Your task to perform on an android device: Clear the shopping cart on ebay.com. Add usb-c to the cart on ebay.com Image 0: 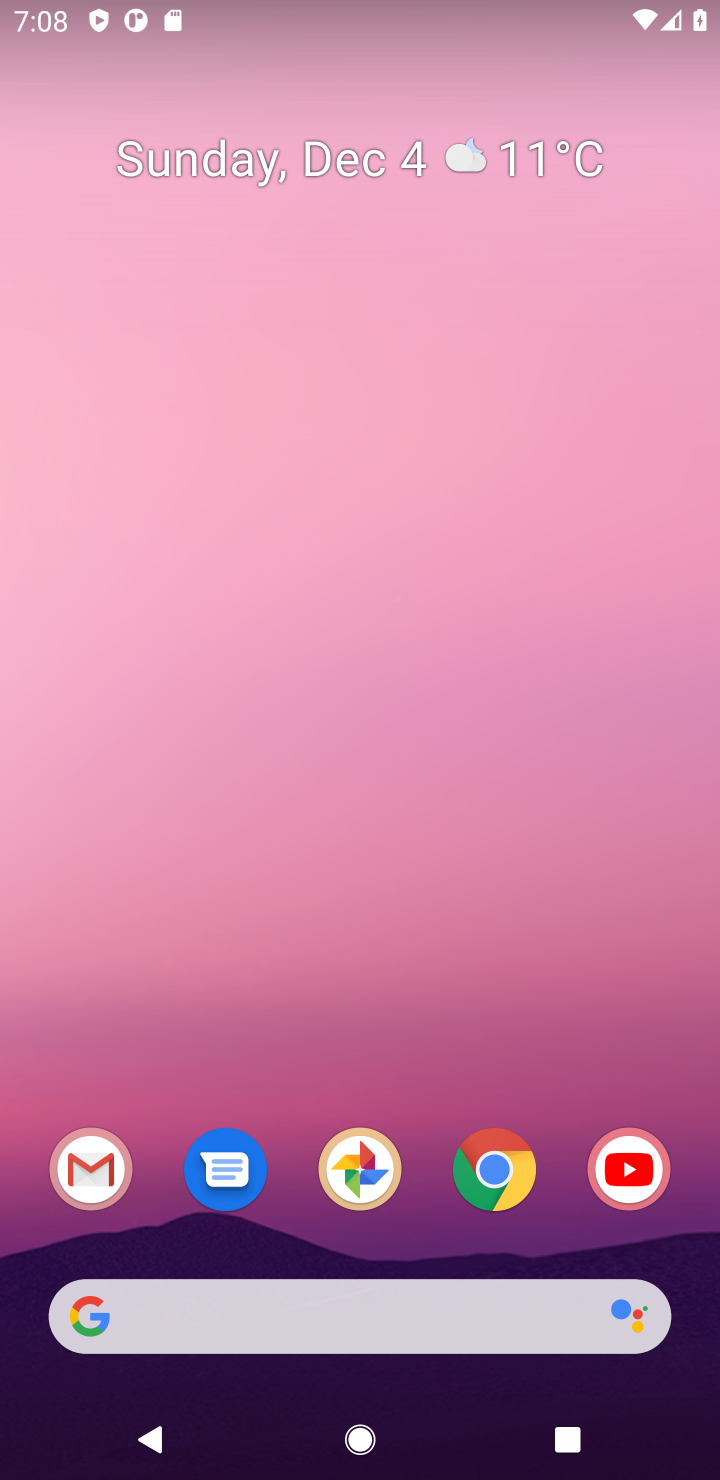
Step 0: drag from (415, 1393) to (604, 14)
Your task to perform on an android device: Clear the shopping cart on ebay.com. Add usb-c to the cart on ebay.com Image 1: 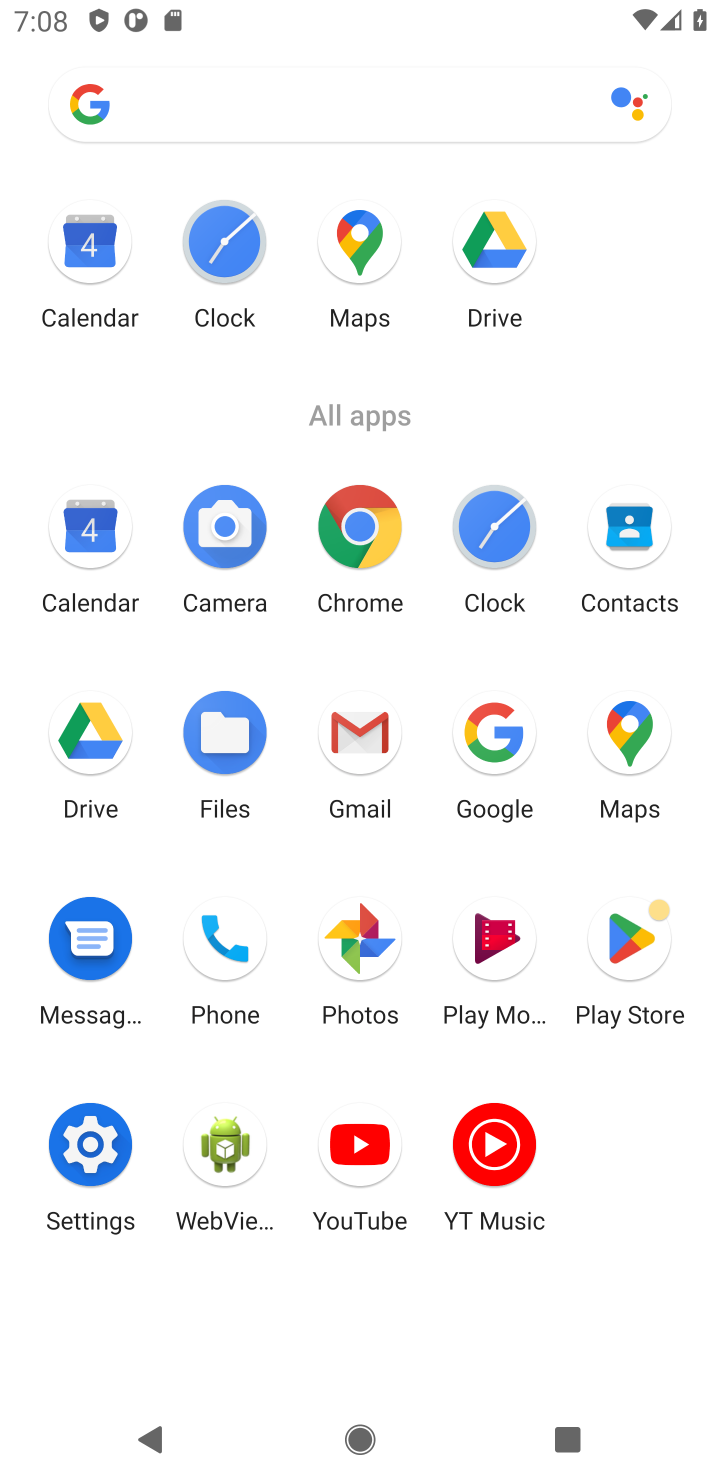
Step 1: click (361, 527)
Your task to perform on an android device: Clear the shopping cart on ebay.com. Add usb-c to the cart on ebay.com Image 2: 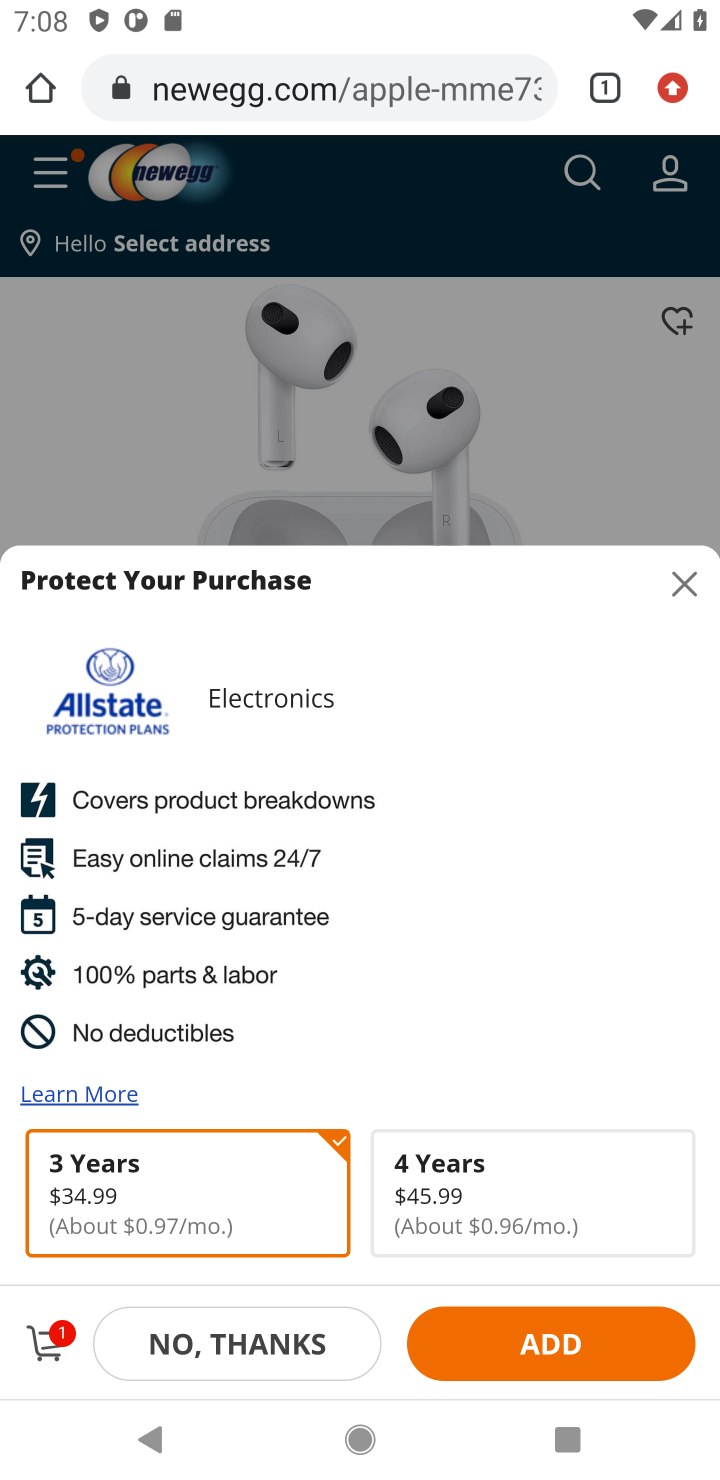
Step 2: click (476, 85)
Your task to perform on an android device: Clear the shopping cart on ebay.com. Add usb-c to the cart on ebay.com Image 3: 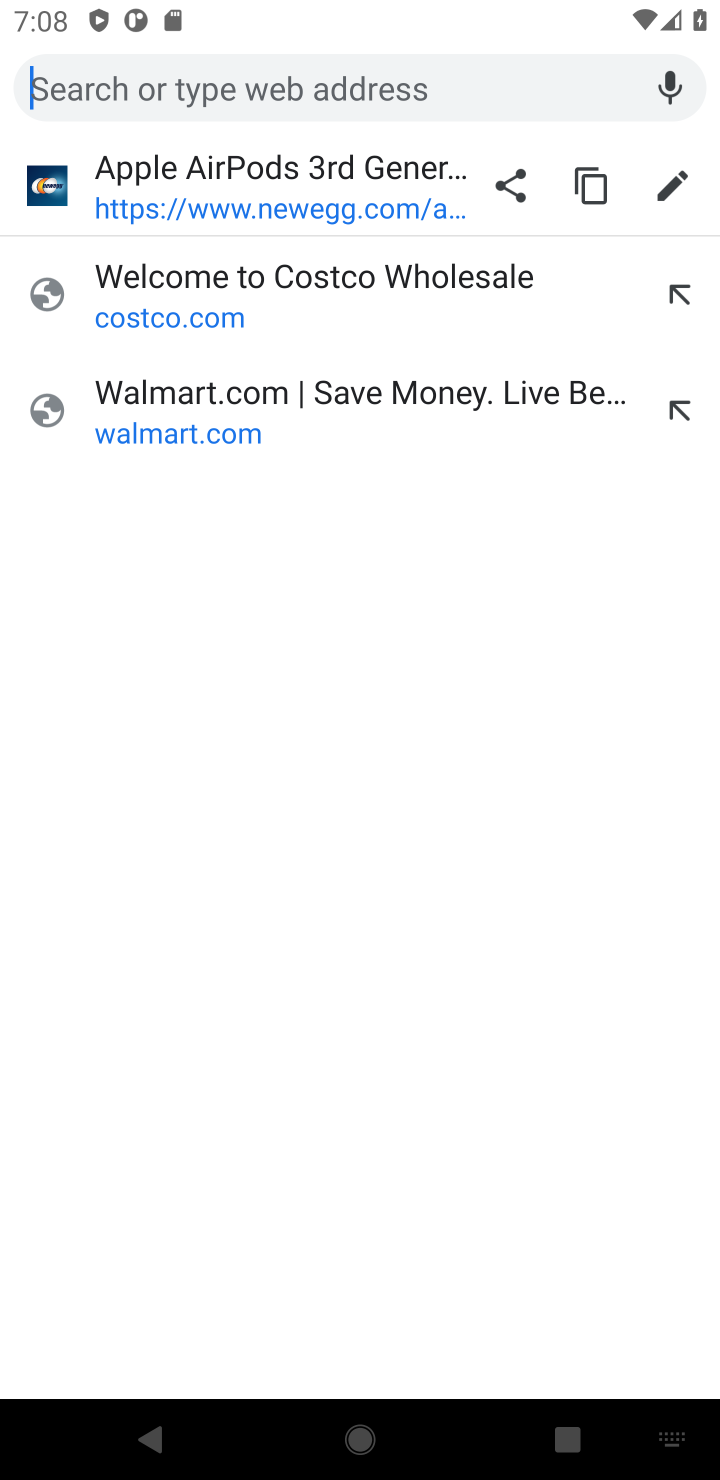
Step 3: type "ebay.com"
Your task to perform on an android device: Clear the shopping cart on ebay.com. Add usb-c to the cart on ebay.com Image 4: 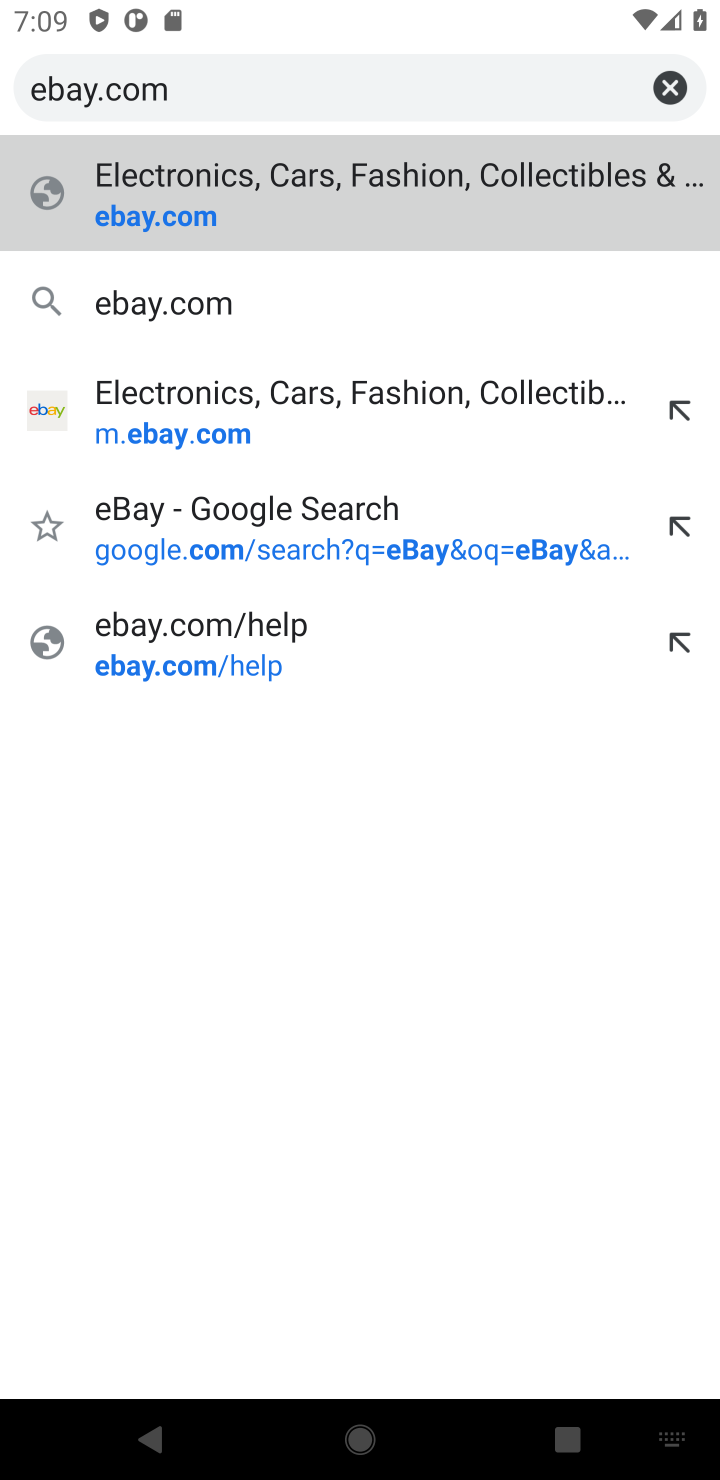
Step 4: type ""
Your task to perform on an android device: Clear the shopping cart on ebay.com. Add usb-c to the cart on ebay.com Image 5: 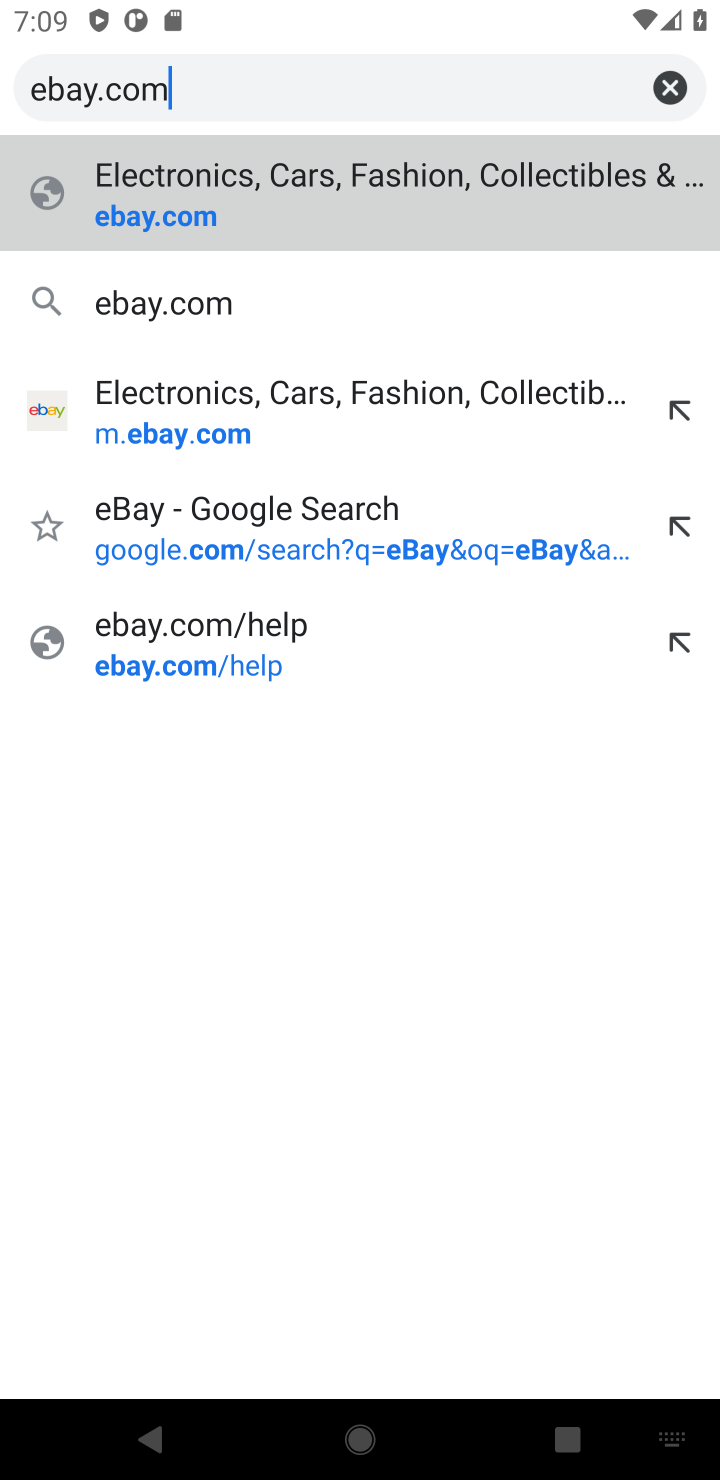
Step 5: click (165, 216)
Your task to perform on an android device: Clear the shopping cart on ebay.com. Add usb-c to the cart on ebay.com Image 6: 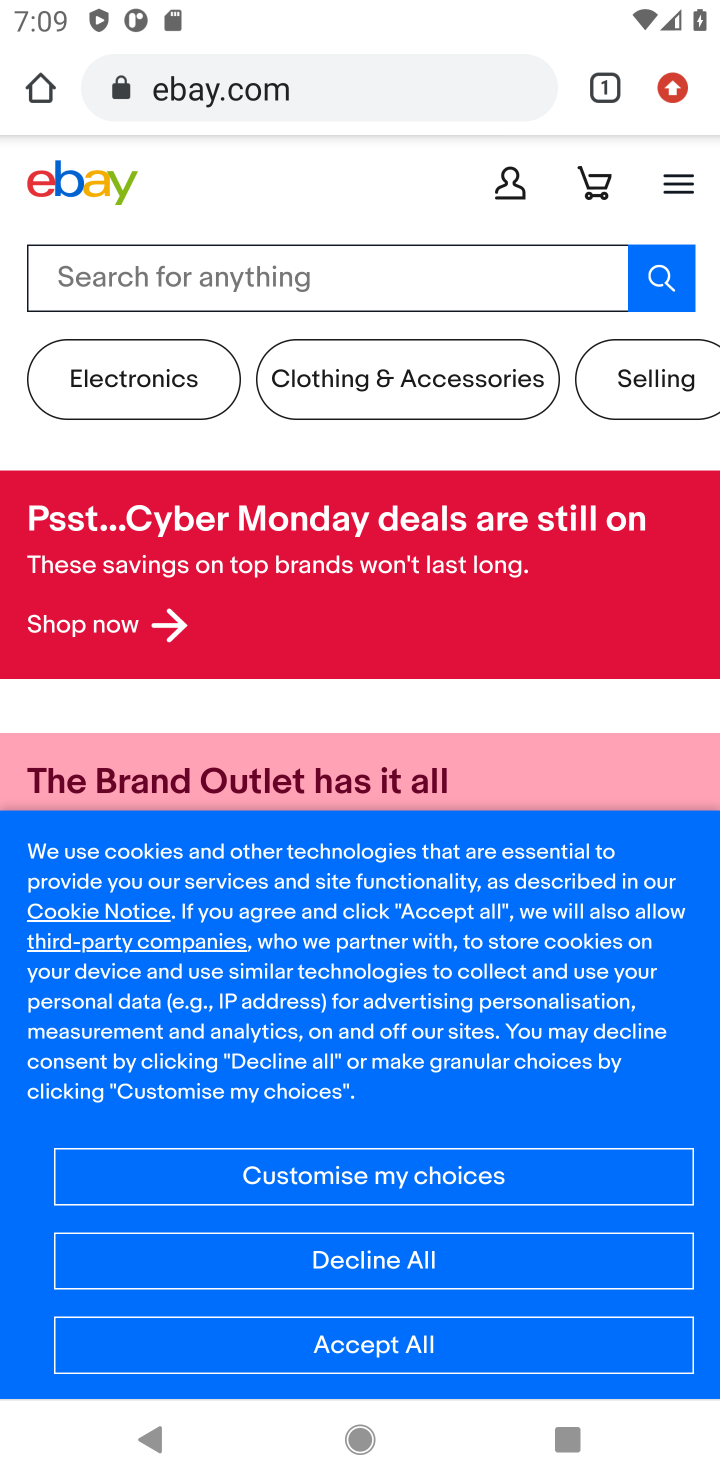
Step 6: click (603, 180)
Your task to perform on an android device: Clear the shopping cart on ebay.com. Add usb-c to the cart on ebay.com Image 7: 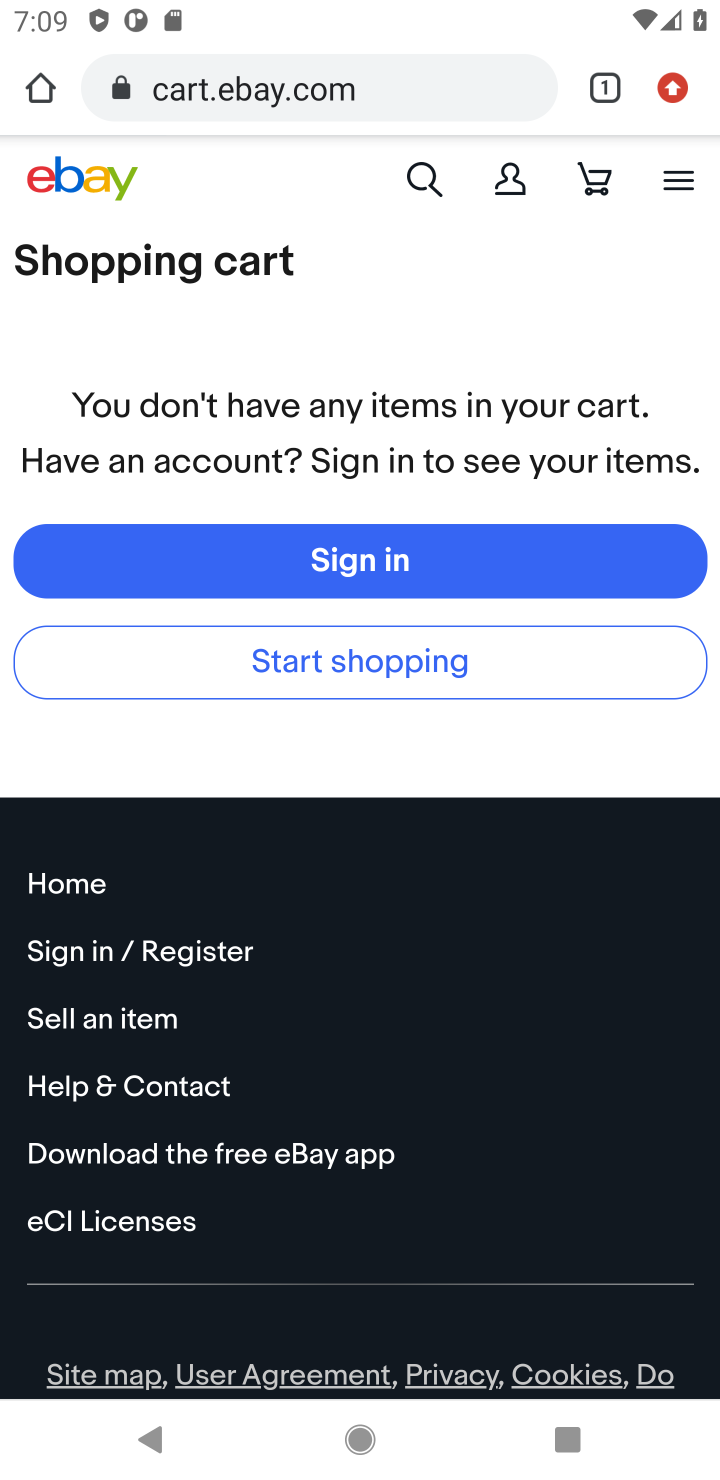
Step 7: click (420, 167)
Your task to perform on an android device: Clear the shopping cart on ebay.com. Add usb-c to the cart on ebay.com Image 8: 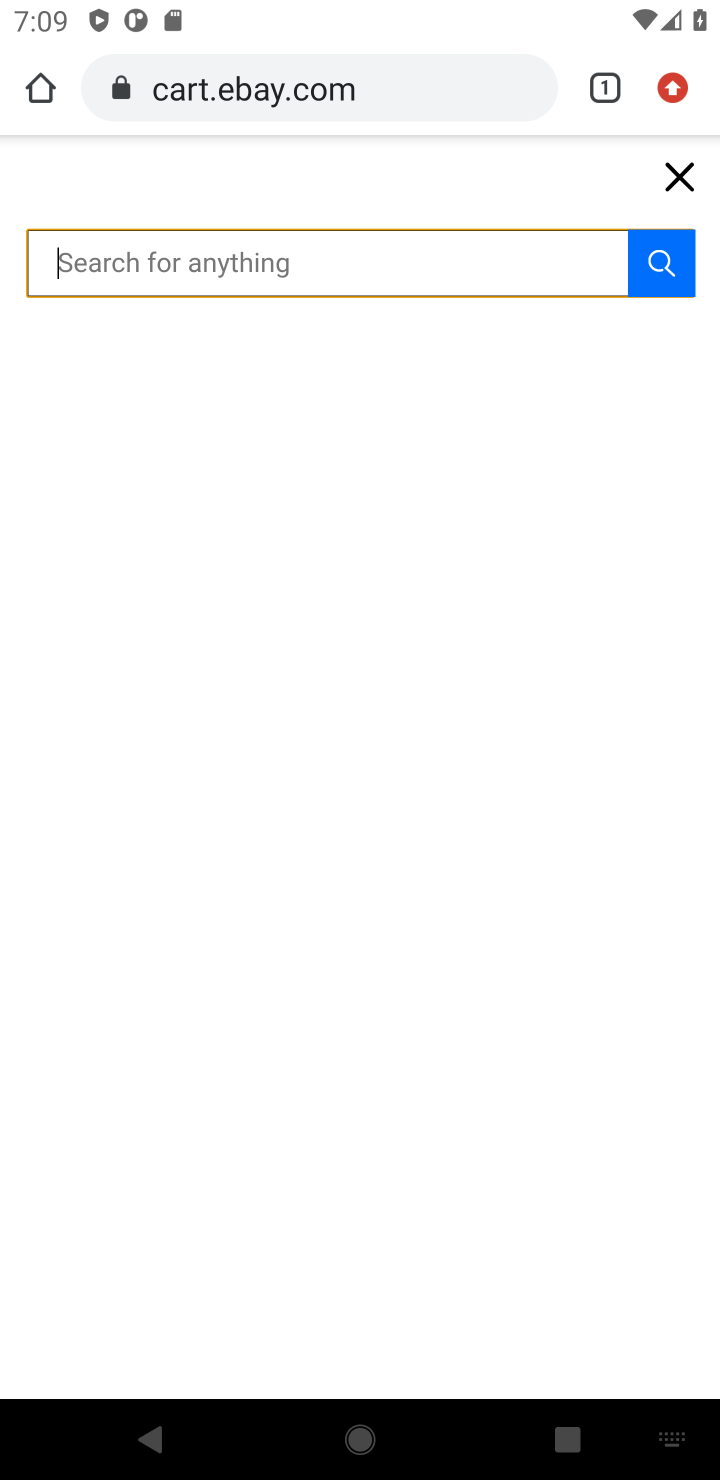
Step 8: type "usb-c "
Your task to perform on an android device: Clear the shopping cart on ebay.com. Add usb-c to the cart on ebay.com Image 9: 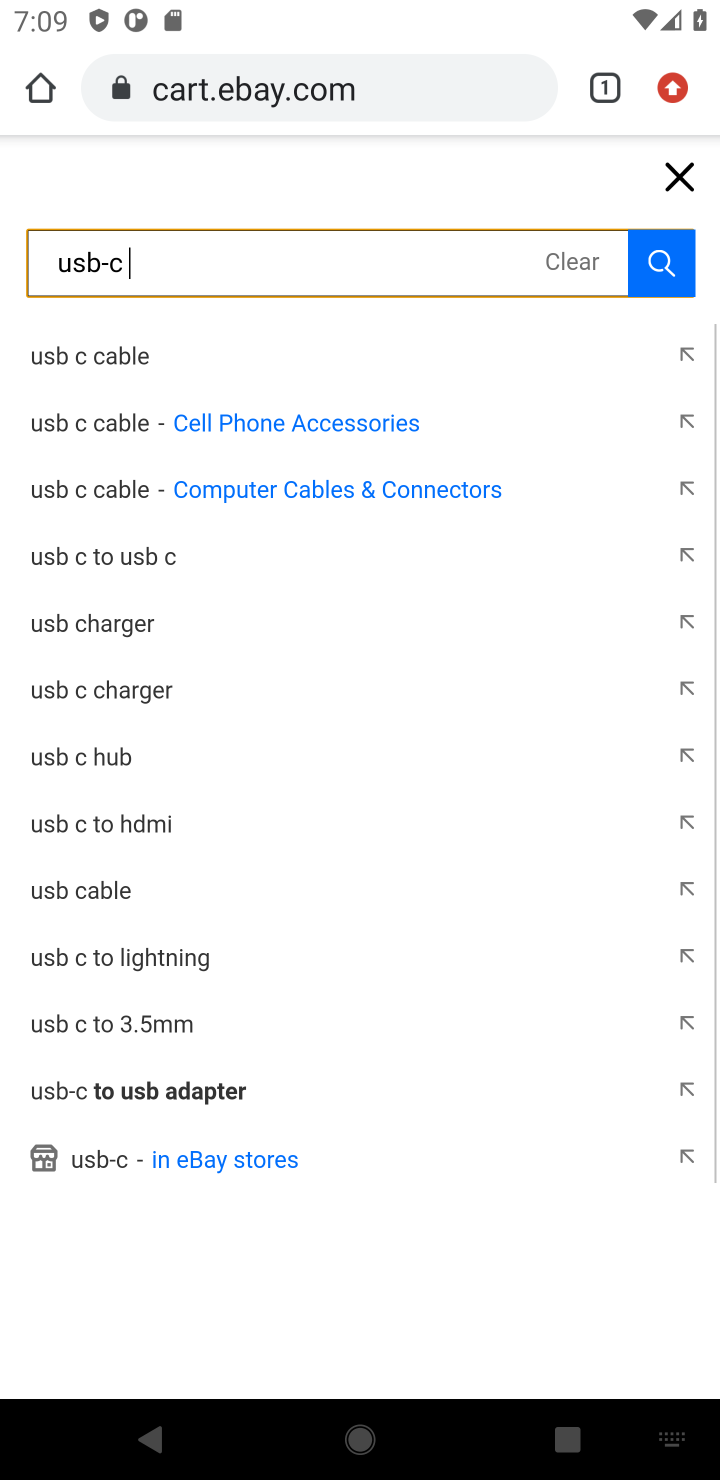
Step 9: type ""
Your task to perform on an android device: Clear the shopping cart on ebay.com. Add usb-c to the cart on ebay.com Image 10: 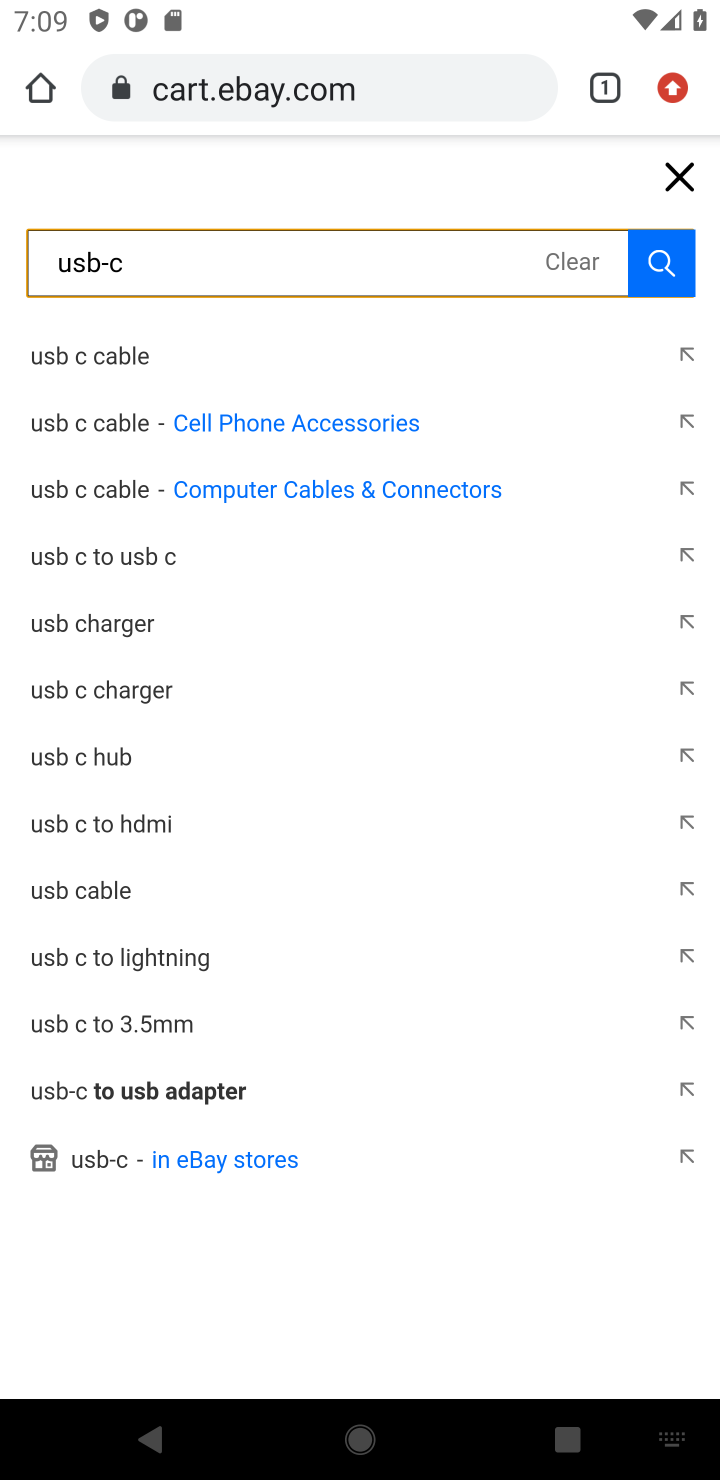
Step 10: click (65, 341)
Your task to perform on an android device: Clear the shopping cart on ebay.com. Add usb-c to the cart on ebay.com Image 11: 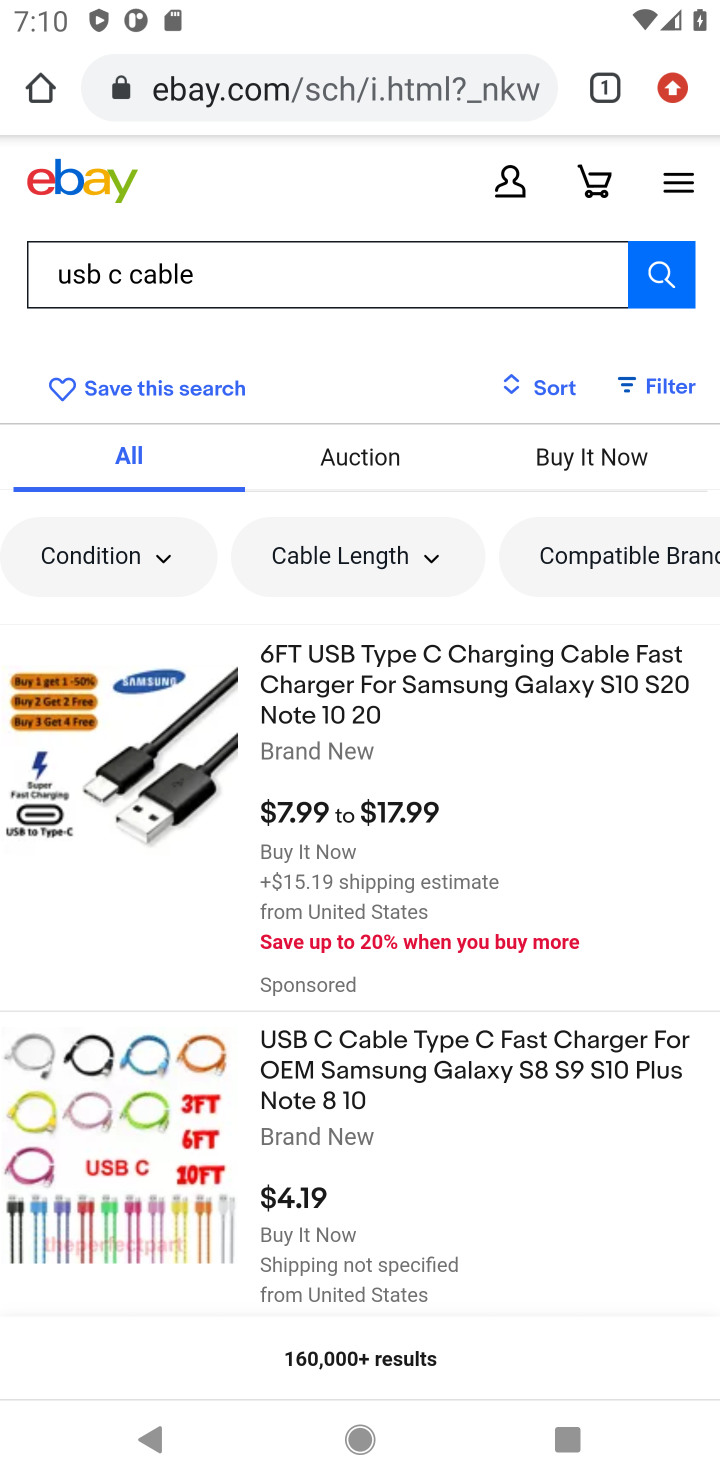
Step 11: click (110, 802)
Your task to perform on an android device: Clear the shopping cart on ebay.com. Add usb-c to the cart on ebay.com Image 12: 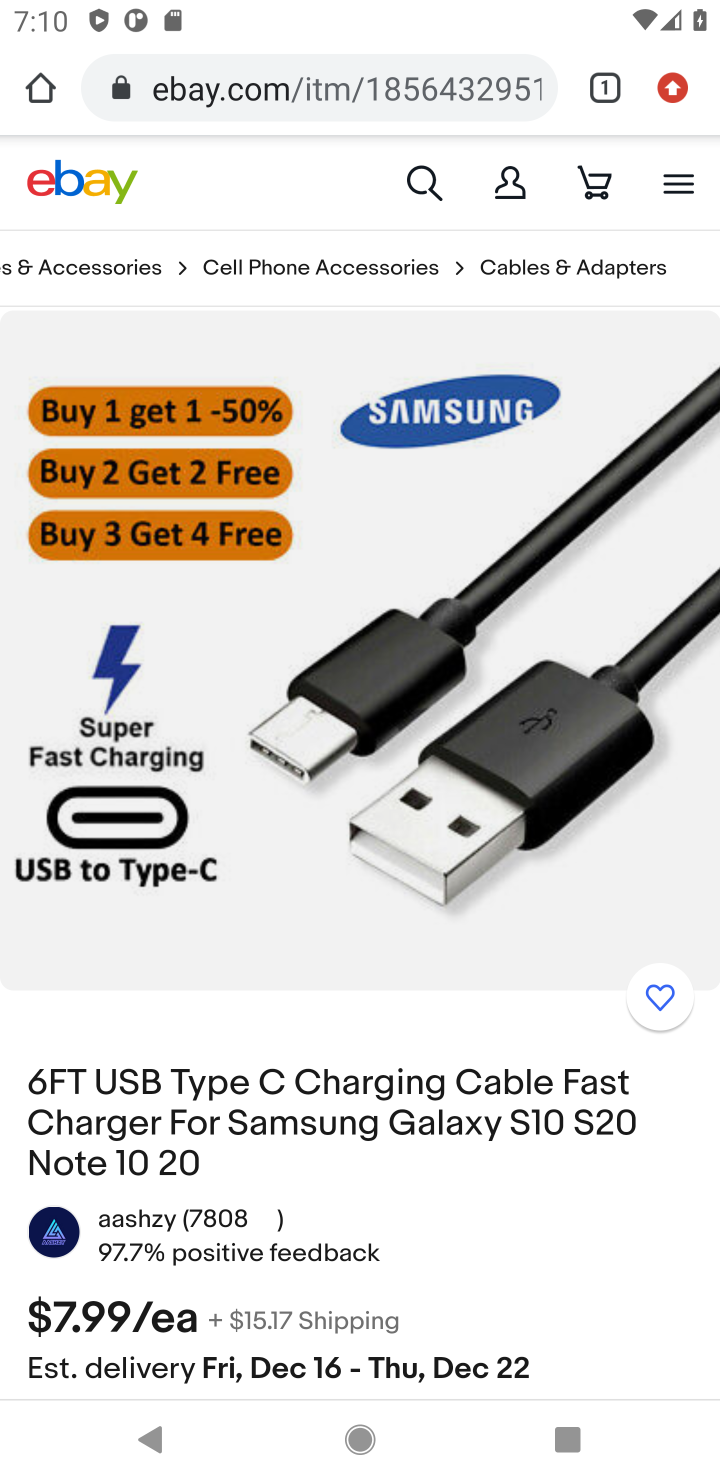
Step 12: drag from (412, 1207) to (381, 612)
Your task to perform on an android device: Clear the shopping cart on ebay.com. Add usb-c to the cart on ebay.com Image 13: 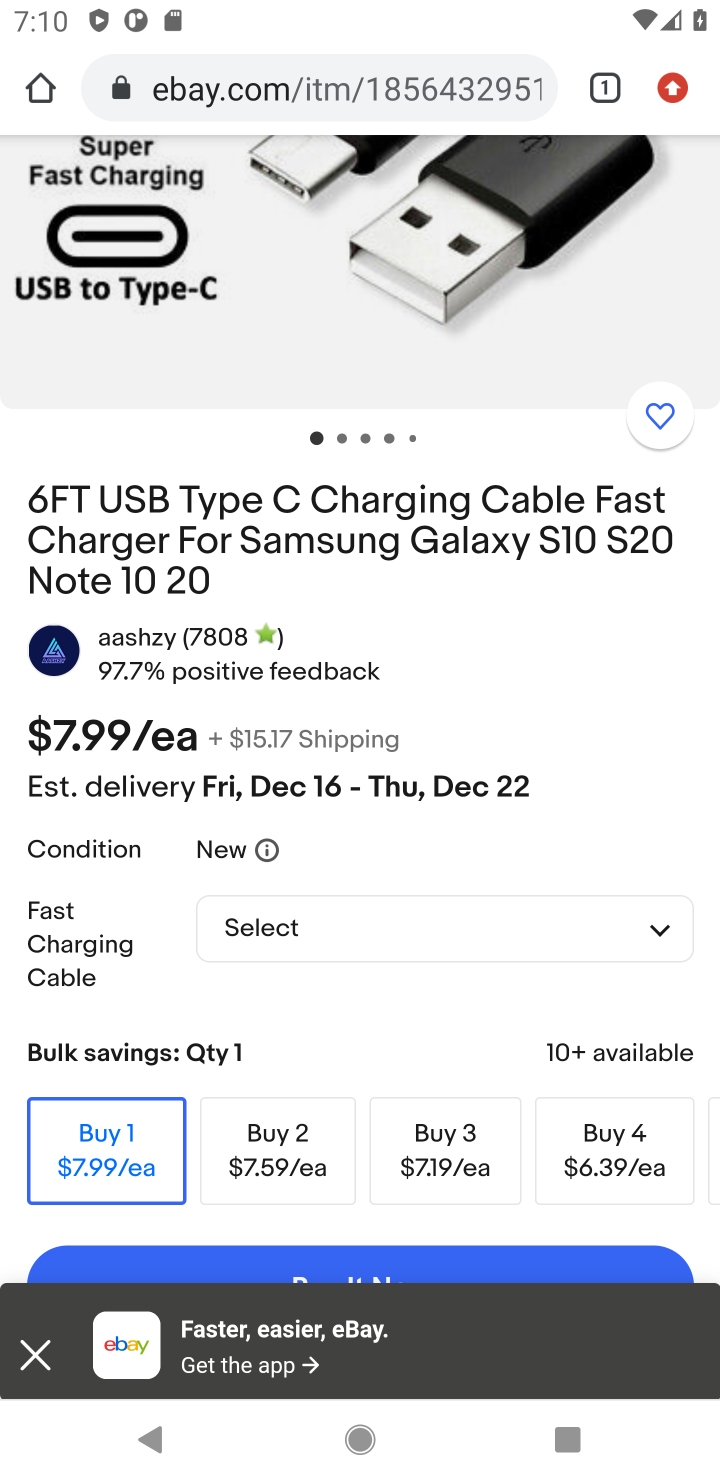
Step 13: drag from (543, 632) to (466, 147)
Your task to perform on an android device: Clear the shopping cart on ebay.com. Add usb-c to the cart on ebay.com Image 14: 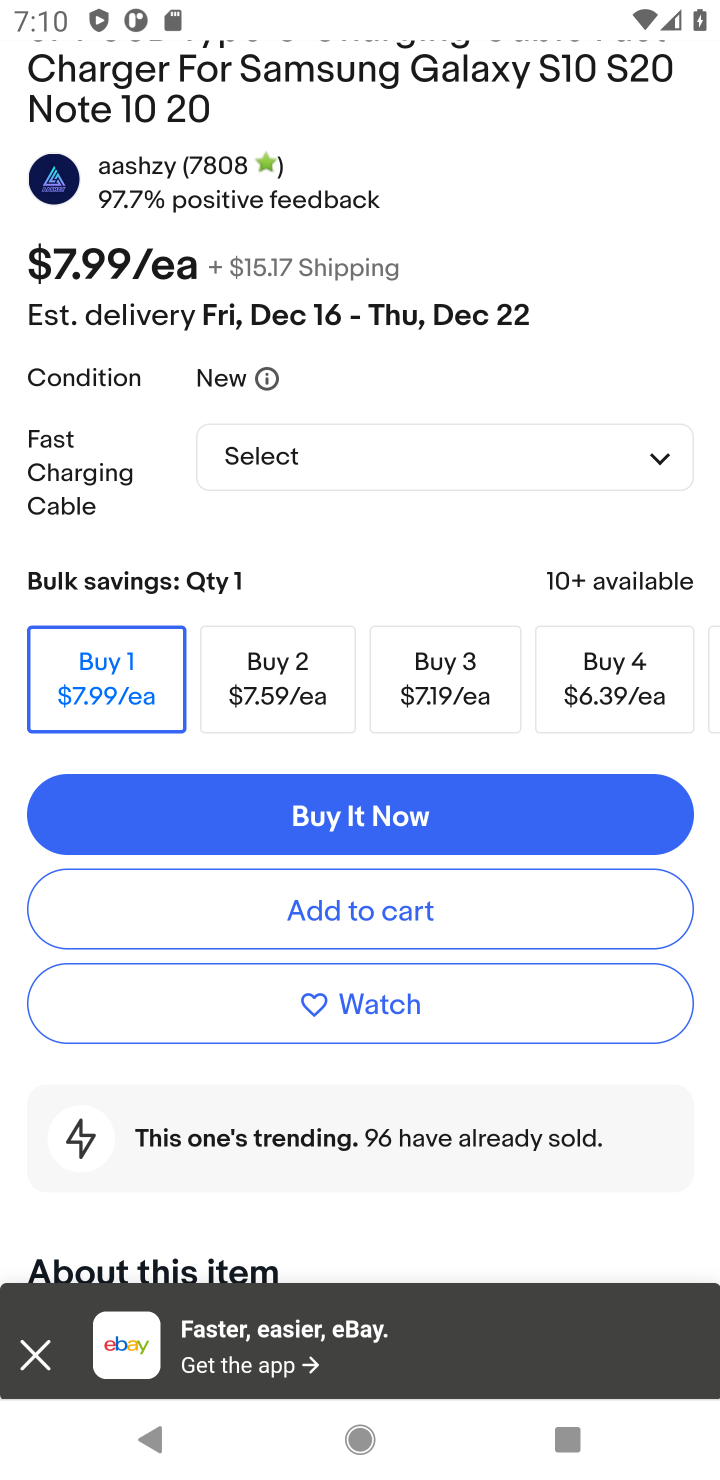
Step 14: click (337, 908)
Your task to perform on an android device: Clear the shopping cart on ebay.com. Add usb-c to the cart on ebay.com Image 15: 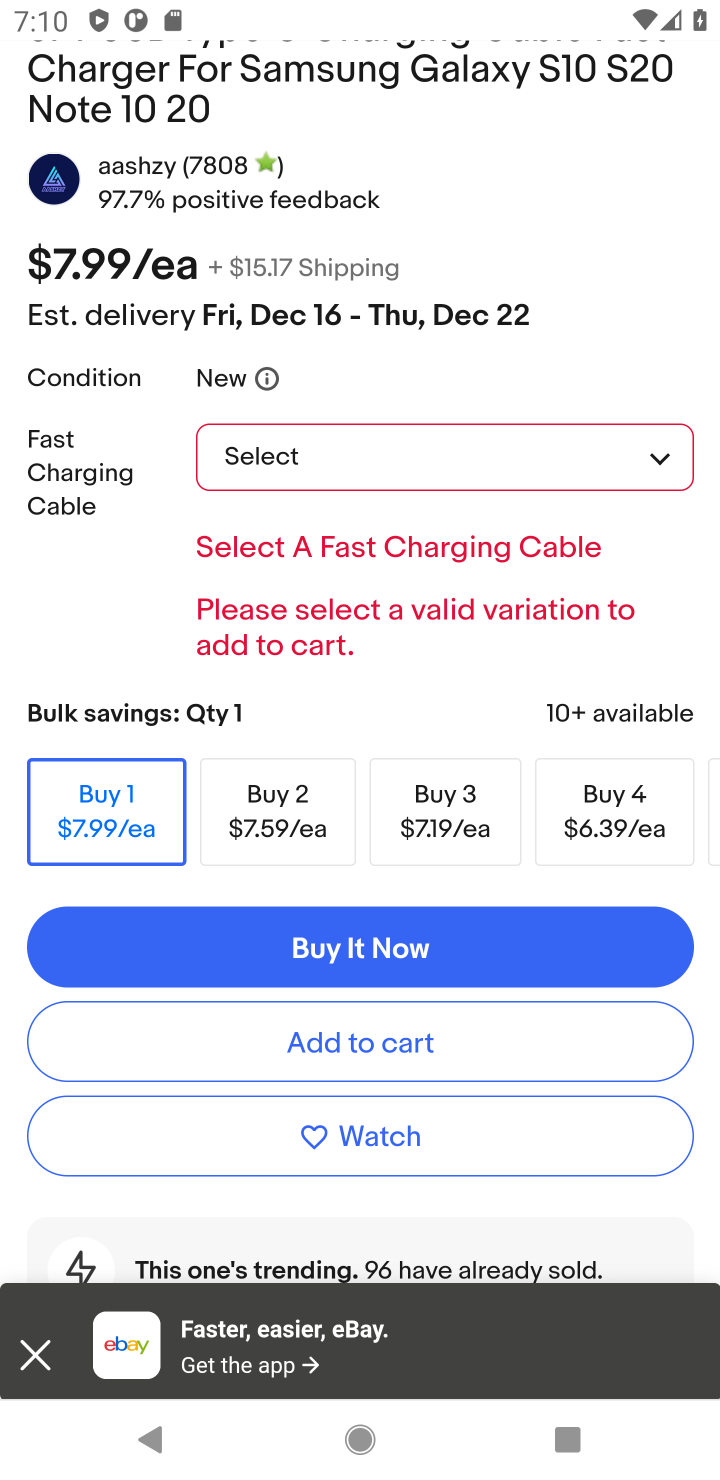
Step 15: click (338, 1040)
Your task to perform on an android device: Clear the shopping cart on ebay.com. Add usb-c to the cart on ebay.com Image 16: 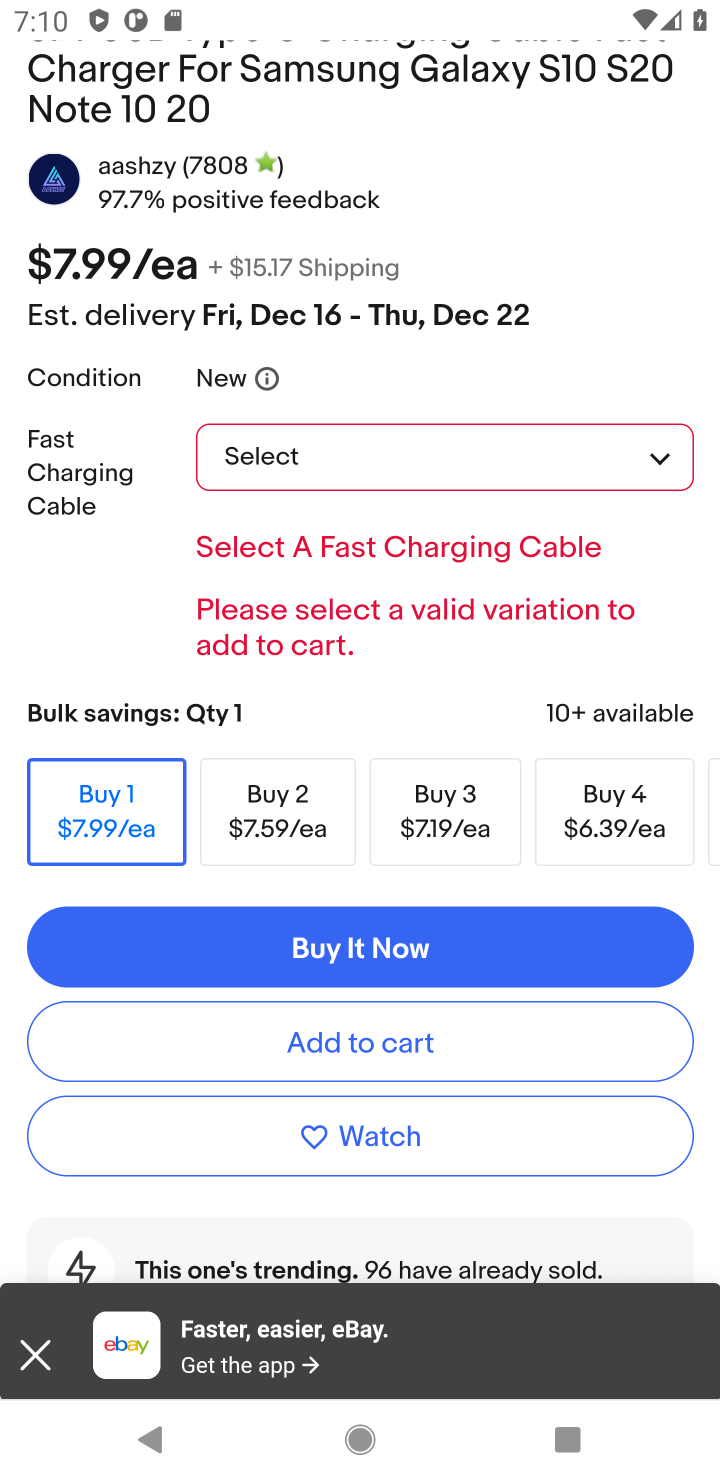
Step 16: click (666, 460)
Your task to perform on an android device: Clear the shopping cart on ebay.com. Add usb-c to the cart on ebay.com Image 17: 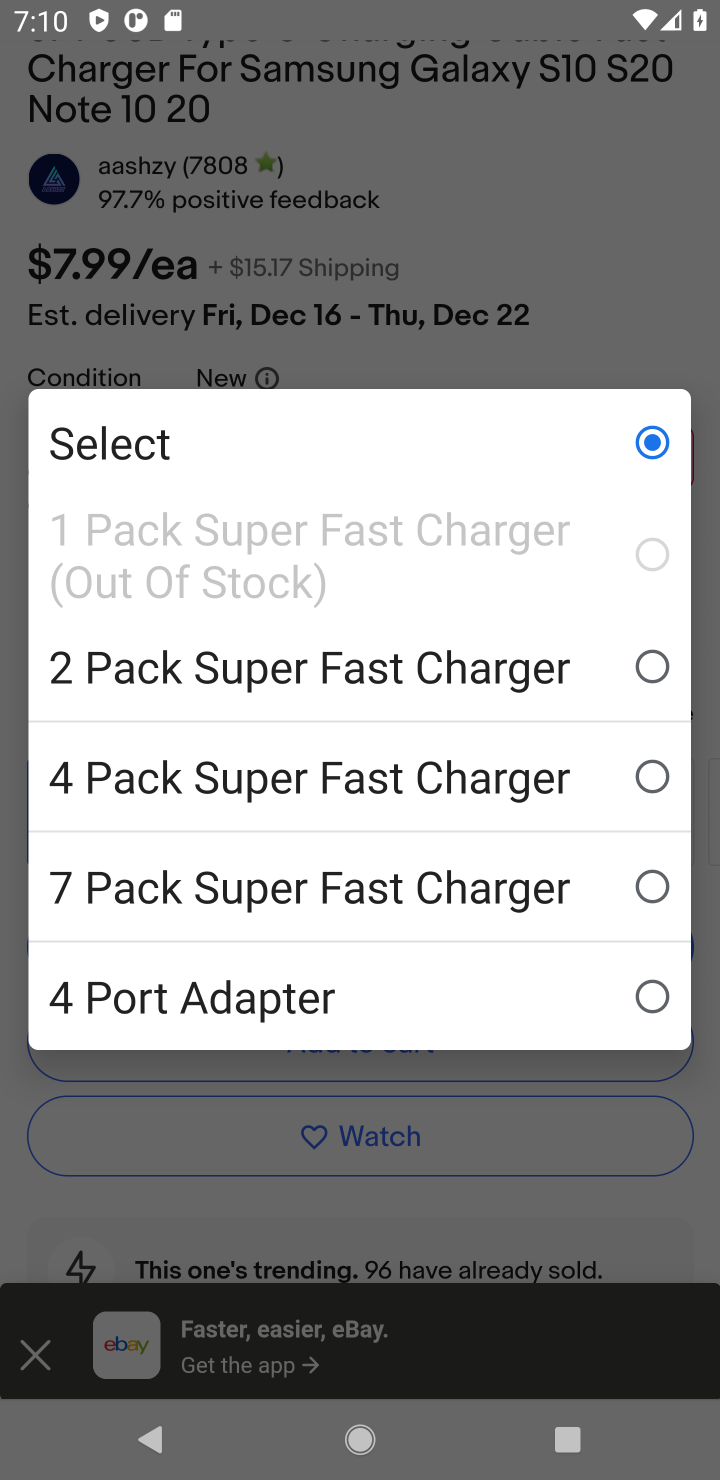
Step 17: click (640, 658)
Your task to perform on an android device: Clear the shopping cart on ebay.com. Add usb-c to the cart on ebay.com Image 18: 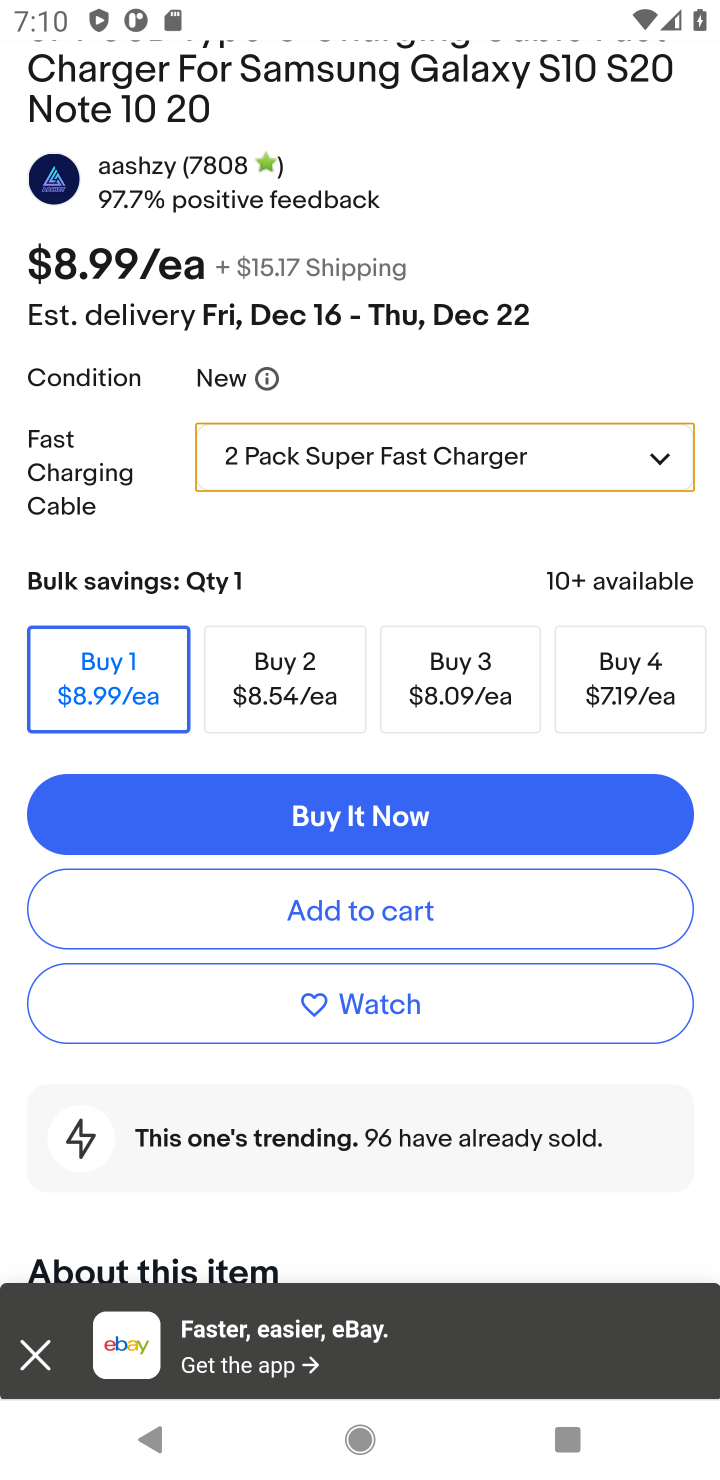
Step 18: click (375, 902)
Your task to perform on an android device: Clear the shopping cart on ebay.com. Add usb-c to the cart on ebay.com Image 19: 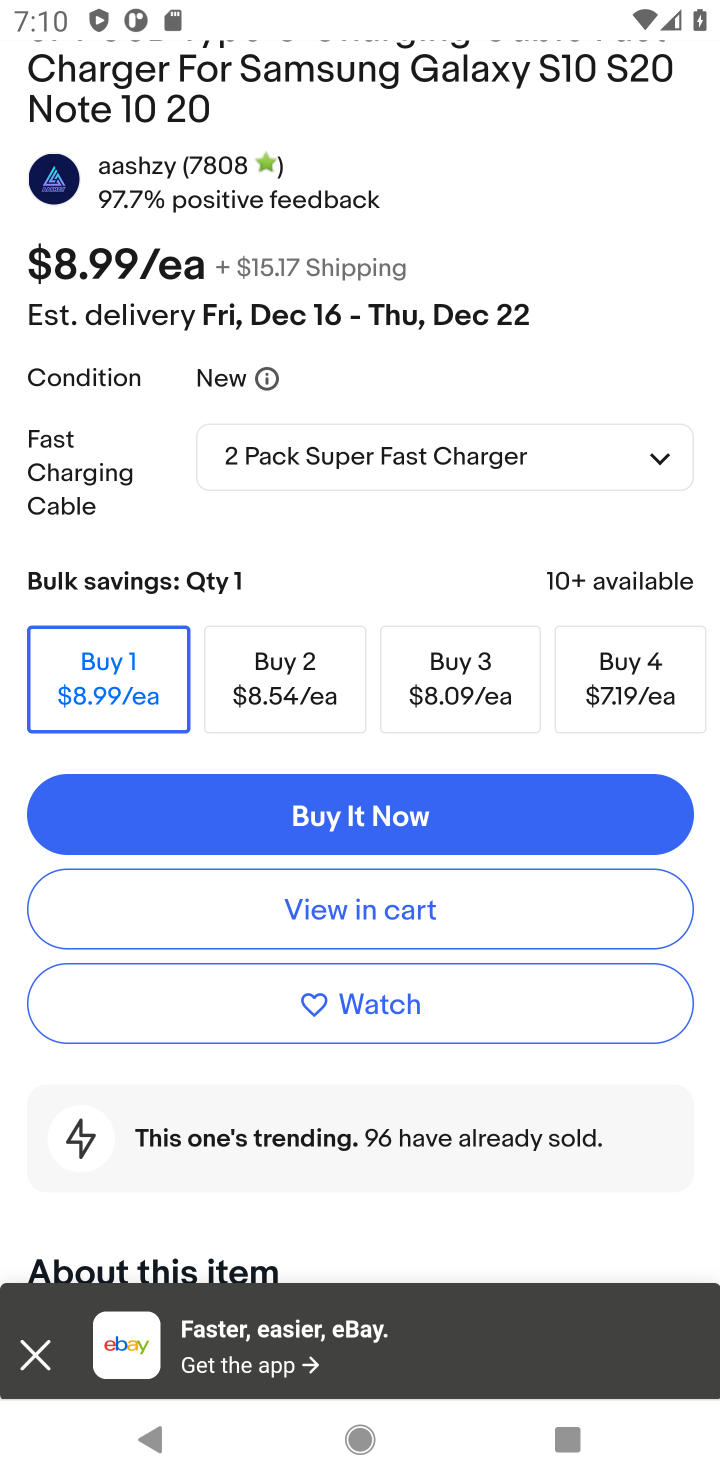
Step 19: task complete